Your task to perform on an android device: Go to Maps Image 0: 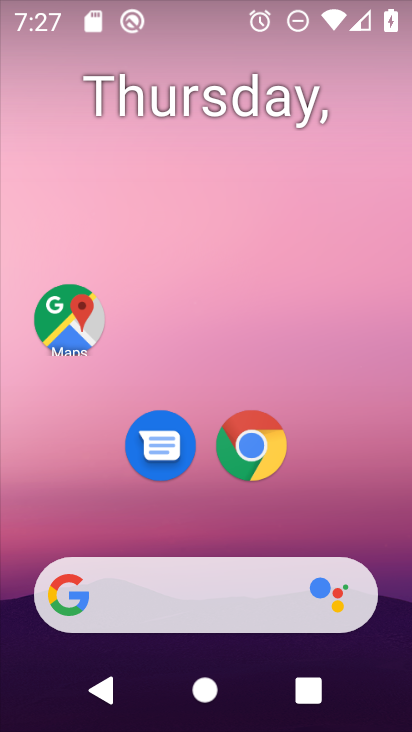
Step 0: click (55, 331)
Your task to perform on an android device: Go to Maps Image 1: 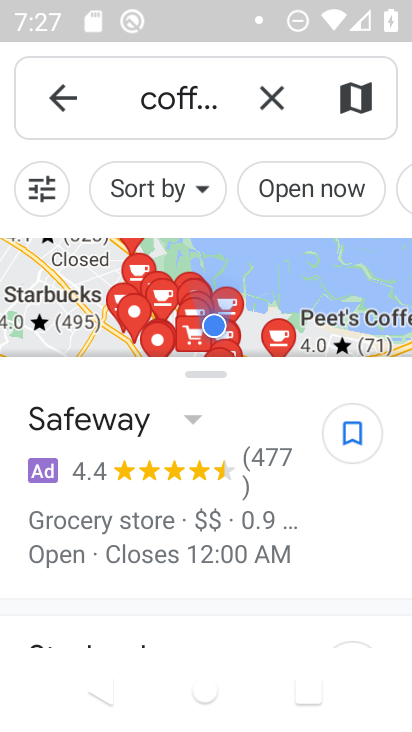
Step 1: task complete